Your task to perform on an android device: Open battery settings Image 0: 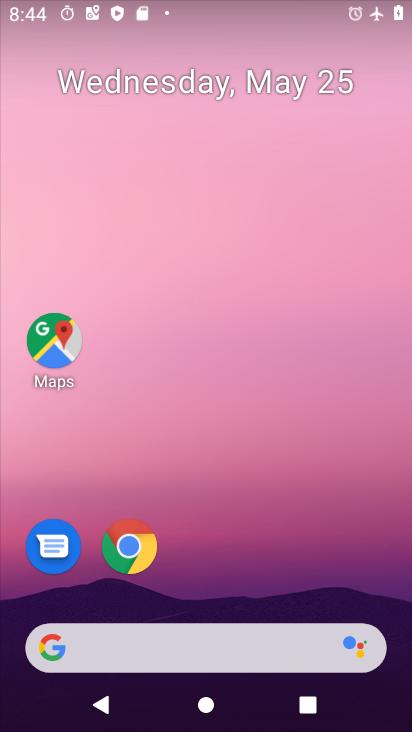
Step 0: drag from (209, 595) to (241, 96)
Your task to perform on an android device: Open battery settings Image 1: 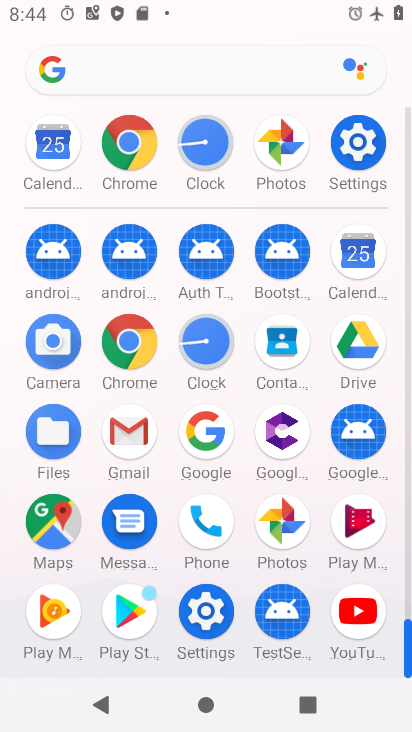
Step 1: click (351, 156)
Your task to perform on an android device: Open battery settings Image 2: 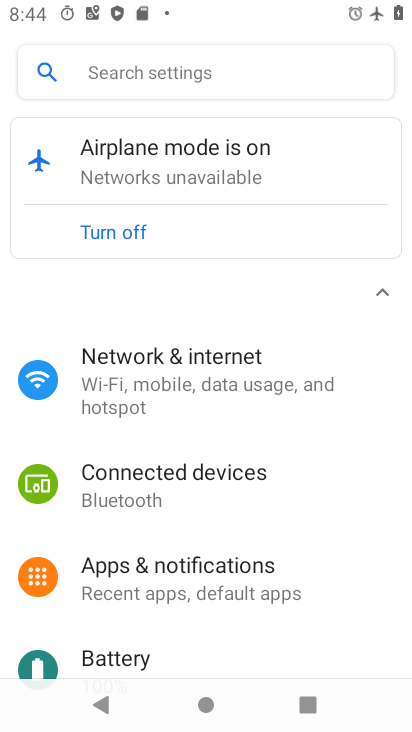
Step 2: click (118, 671)
Your task to perform on an android device: Open battery settings Image 3: 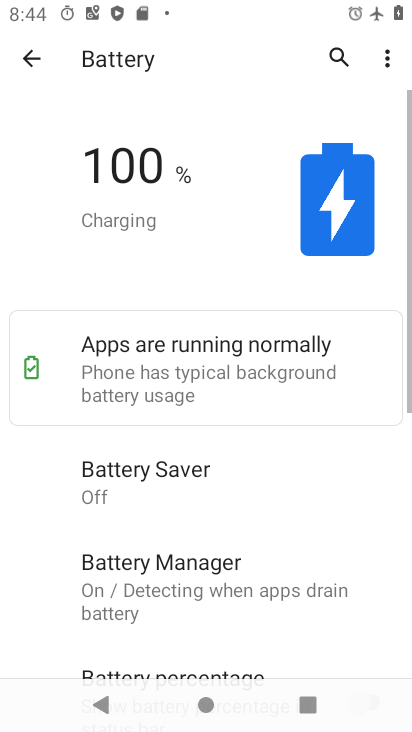
Step 3: task complete